Your task to perform on an android device: snooze an email in the gmail app Image 0: 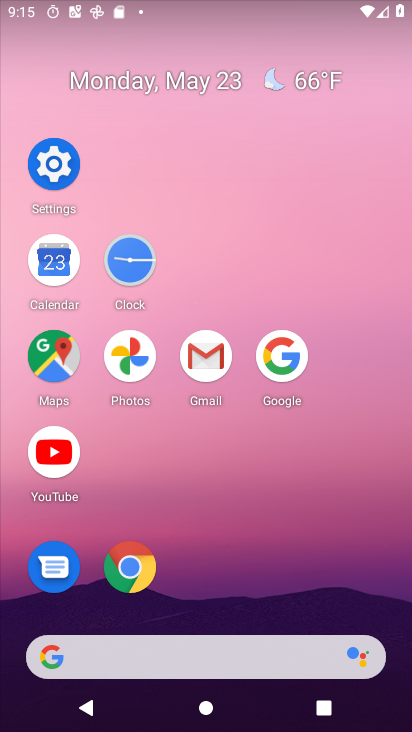
Step 0: click (219, 373)
Your task to perform on an android device: snooze an email in the gmail app Image 1: 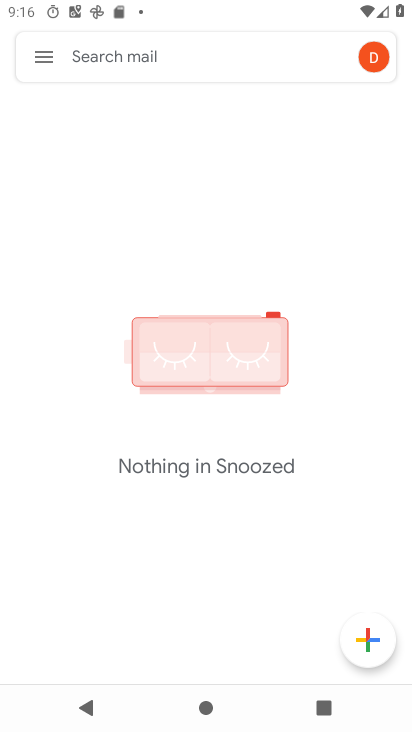
Step 1: click (30, 58)
Your task to perform on an android device: snooze an email in the gmail app Image 2: 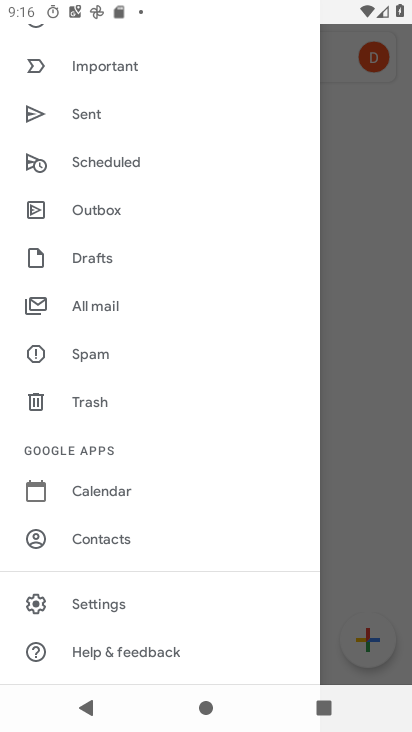
Step 2: click (98, 310)
Your task to perform on an android device: snooze an email in the gmail app Image 3: 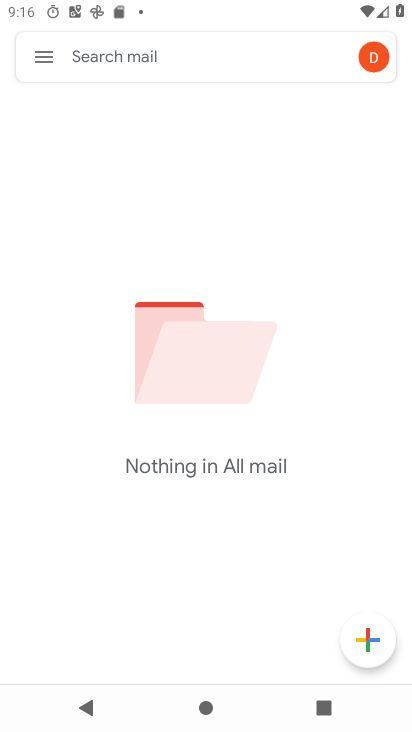
Step 3: task complete